Your task to perform on an android device: find snoozed emails in the gmail app Image 0: 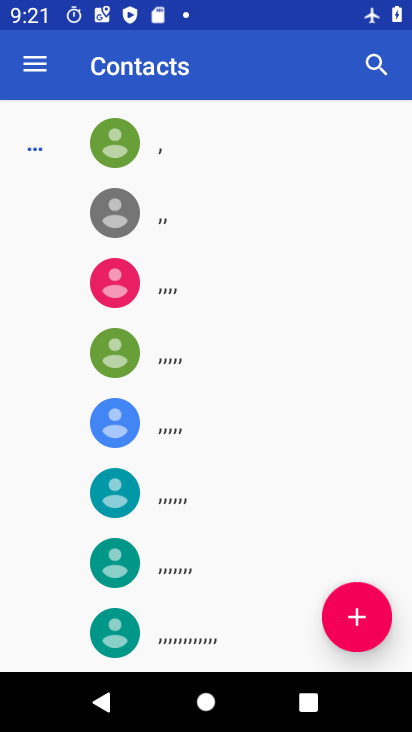
Step 0: press home button
Your task to perform on an android device: find snoozed emails in the gmail app Image 1: 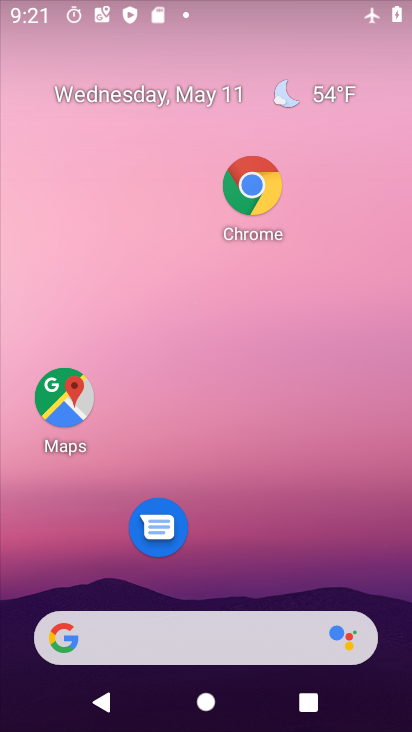
Step 1: drag from (241, 542) to (268, 18)
Your task to perform on an android device: find snoozed emails in the gmail app Image 2: 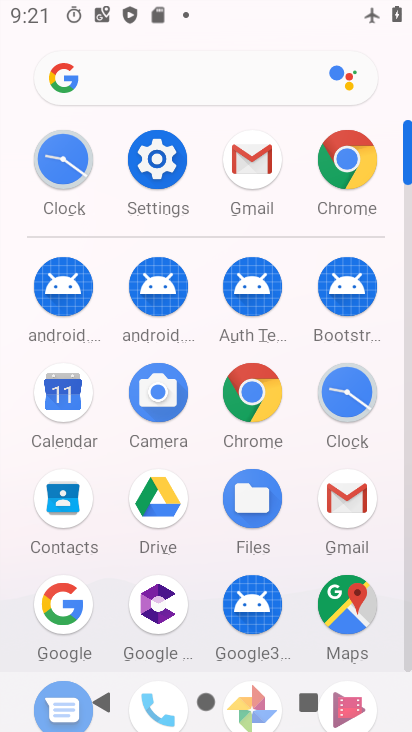
Step 2: click (248, 157)
Your task to perform on an android device: find snoozed emails in the gmail app Image 3: 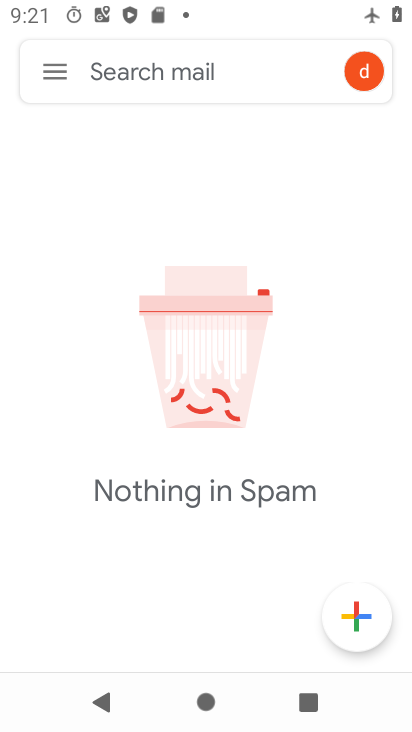
Step 3: click (64, 63)
Your task to perform on an android device: find snoozed emails in the gmail app Image 4: 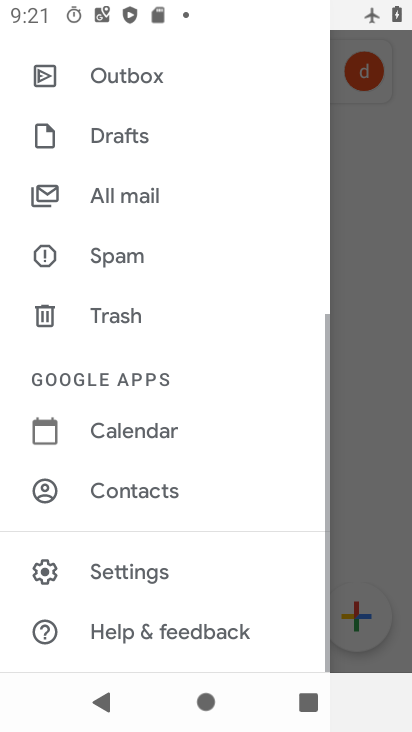
Step 4: drag from (183, 209) to (220, 616)
Your task to perform on an android device: find snoozed emails in the gmail app Image 5: 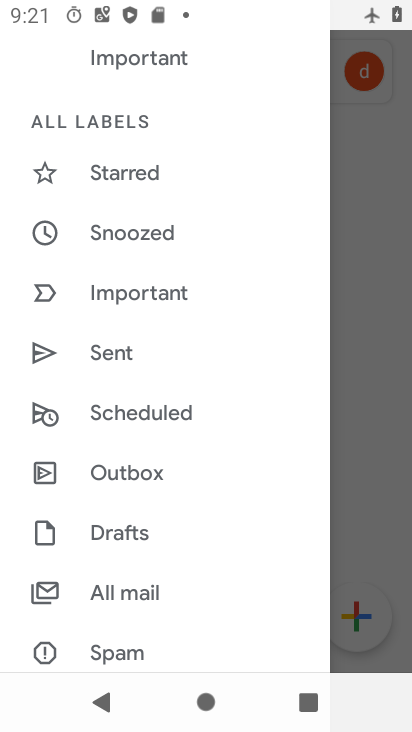
Step 5: click (139, 224)
Your task to perform on an android device: find snoozed emails in the gmail app Image 6: 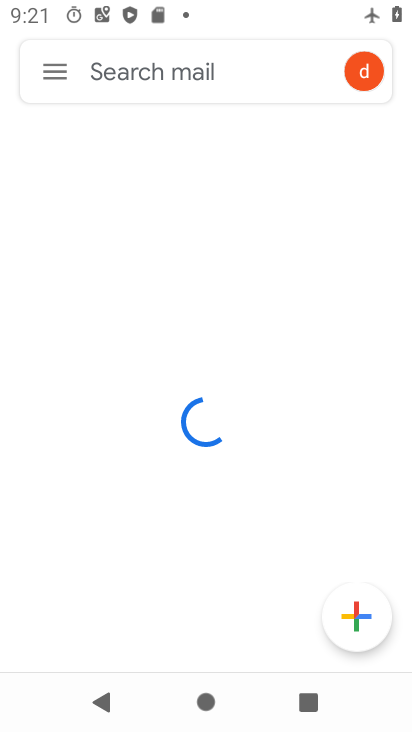
Step 6: task complete